Your task to perform on an android device: toggle sleep mode Image 0: 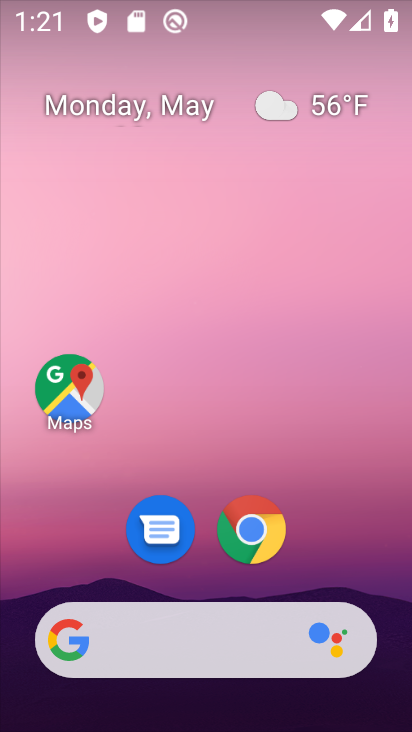
Step 0: drag from (342, 541) to (323, 16)
Your task to perform on an android device: toggle sleep mode Image 1: 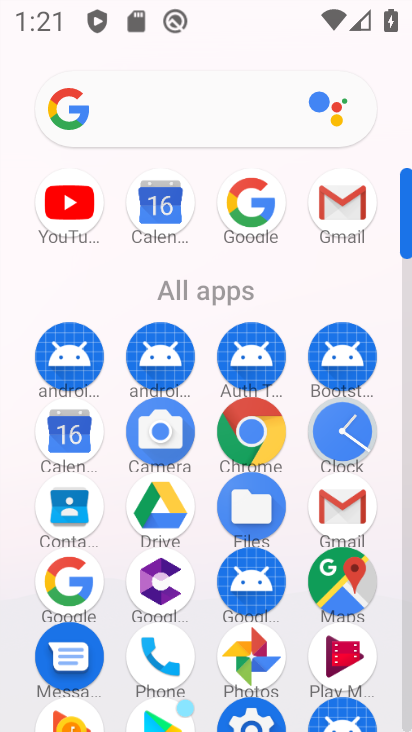
Step 1: drag from (298, 537) to (297, 270)
Your task to perform on an android device: toggle sleep mode Image 2: 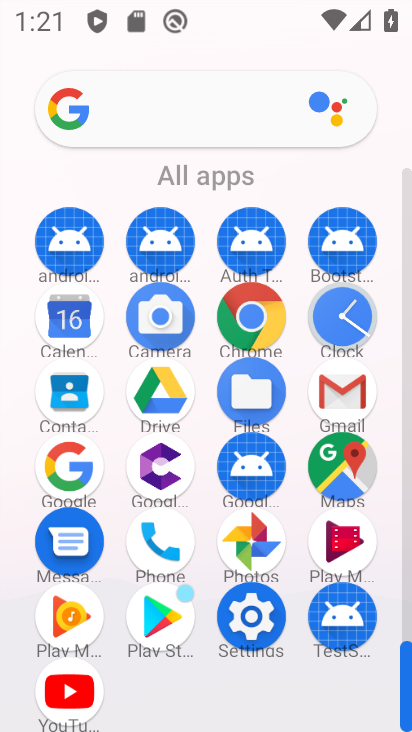
Step 2: click (257, 620)
Your task to perform on an android device: toggle sleep mode Image 3: 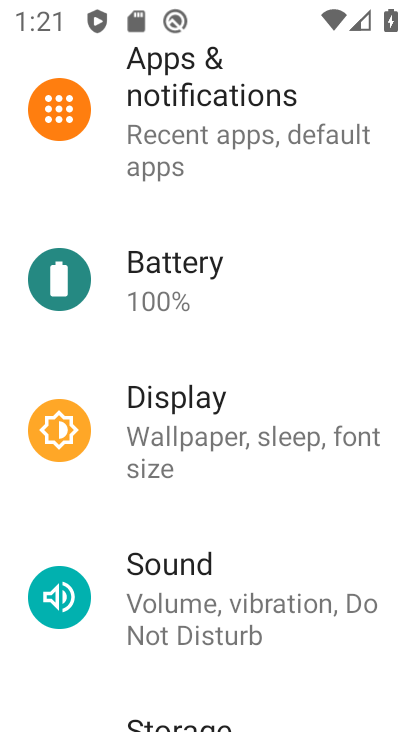
Step 3: click (278, 457)
Your task to perform on an android device: toggle sleep mode Image 4: 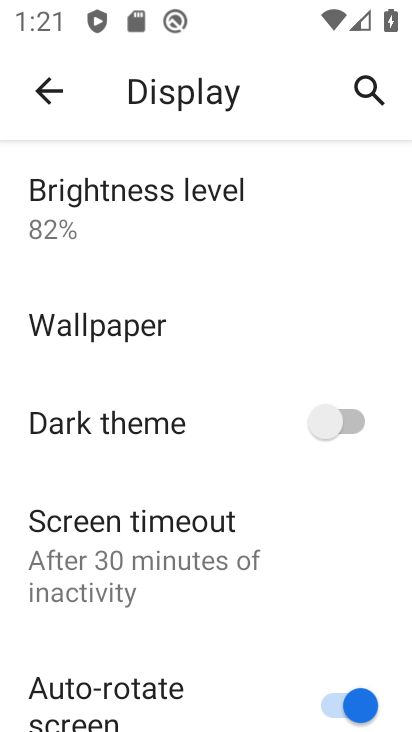
Step 4: drag from (215, 565) to (252, 267)
Your task to perform on an android device: toggle sleep mode Image 5: 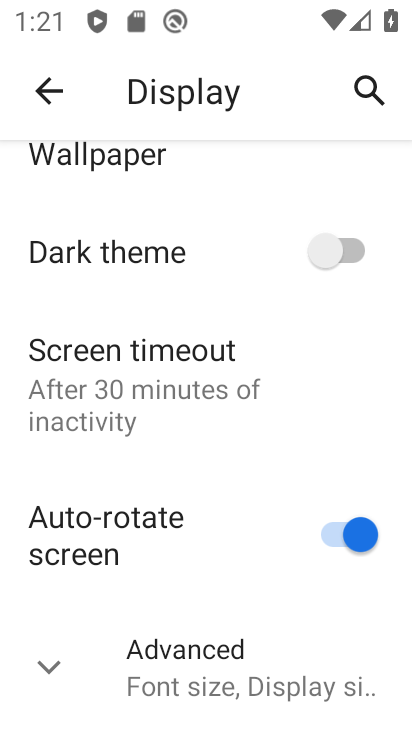
Step 5: click (244, 693)
Your task to perform on an android device: toggle sleep mode Image 6: 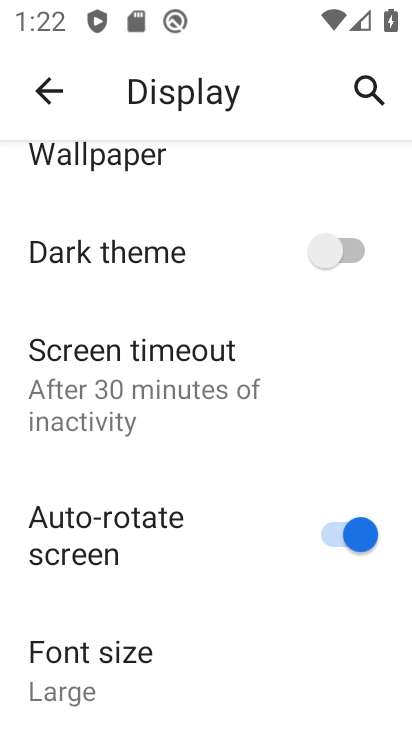
Step 6: drag from (262, 701) to (229, 337)
Your task to perform on an android device: toggle sleep mode Image 7: 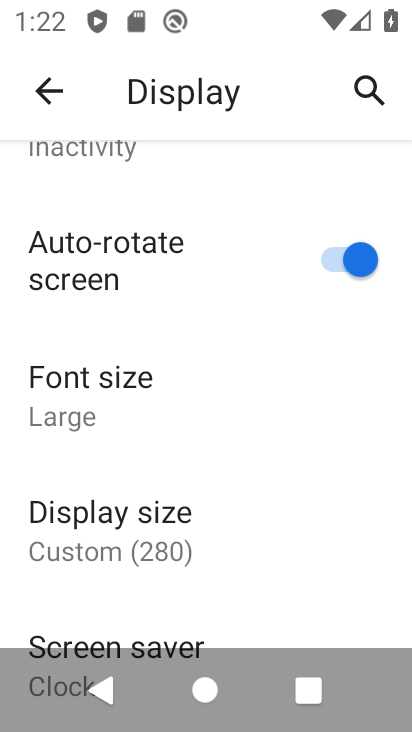
Step 7: drag from (231, 557) to (242, 154)
Your task to perform on an android device: toggle sleep mode Image 8: 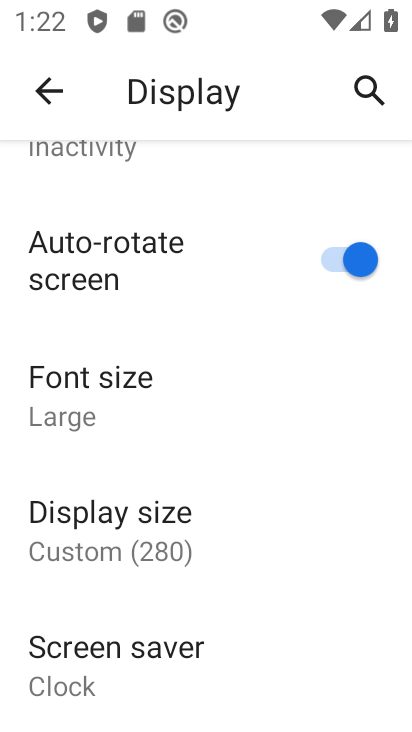
Step 8: click (30, 97)
Your task to perform on an android device: toggle sleep mode Image 9: 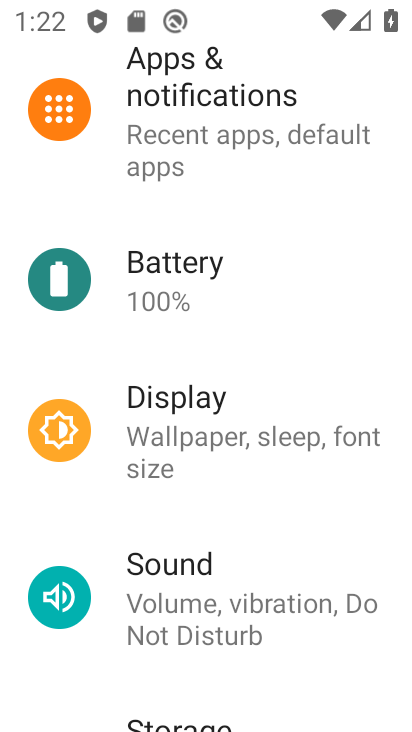
Step 9: task complete